Your task to perform on an android device: make emails show in primary in the gmail app Image 0: 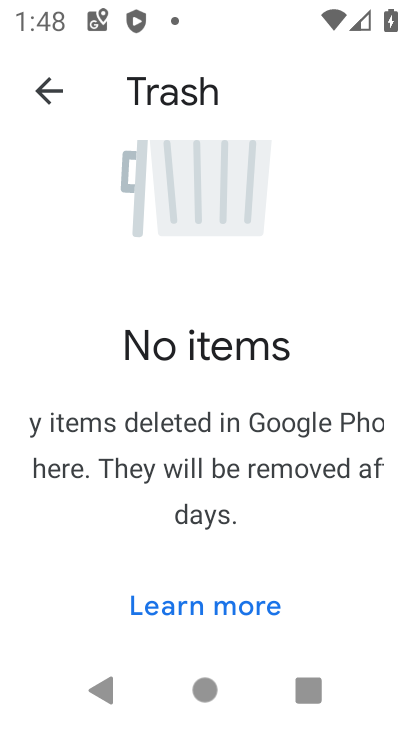
Step 0: press home button
Your task to perform on an android device: make emails show in primary in the gmail app Image 1: 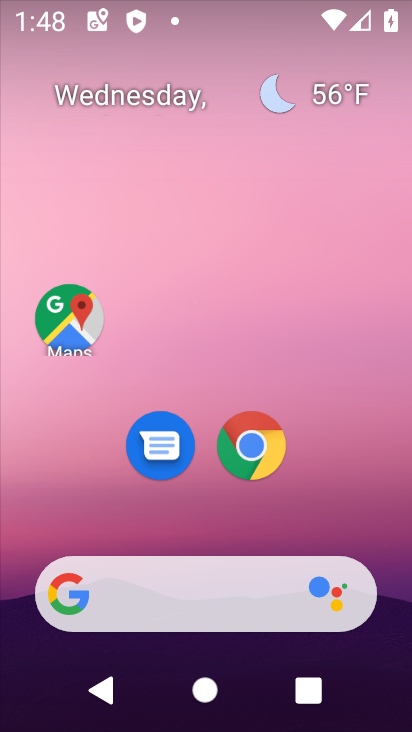
Step 1: drag from (215, 543) to (193, 112)
Your task to perform on an android device: make emails show in primary in the gmail app Image 2: 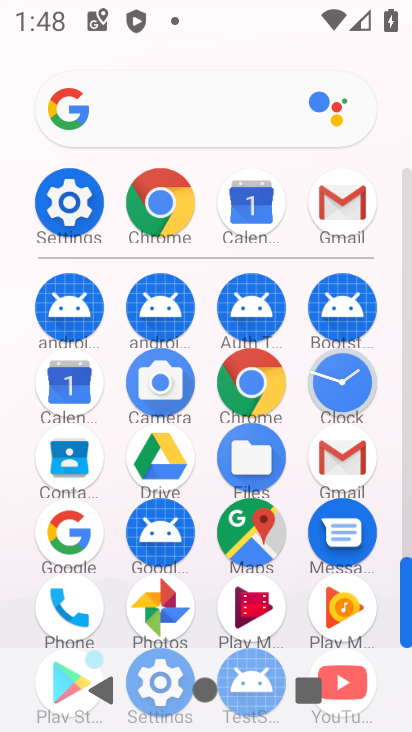
Step 2: click (346, 460)
Your task to perform on an android device: make emails show in primary in the gmail app Image 3: 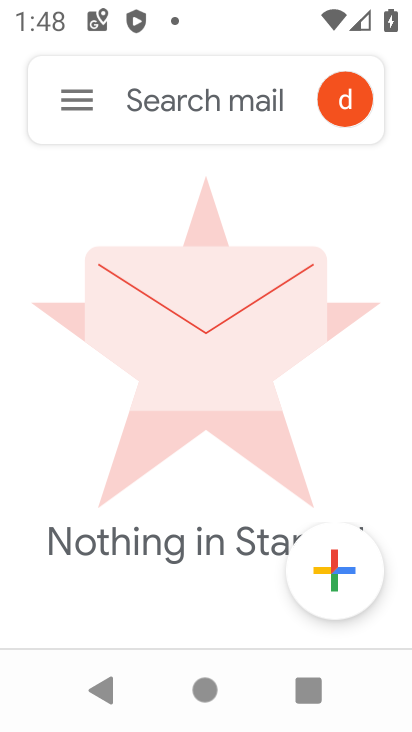
Step 3: click (55, 93)
Your task to perform on an android device: make emails show in primary in the gmail app Image 4: 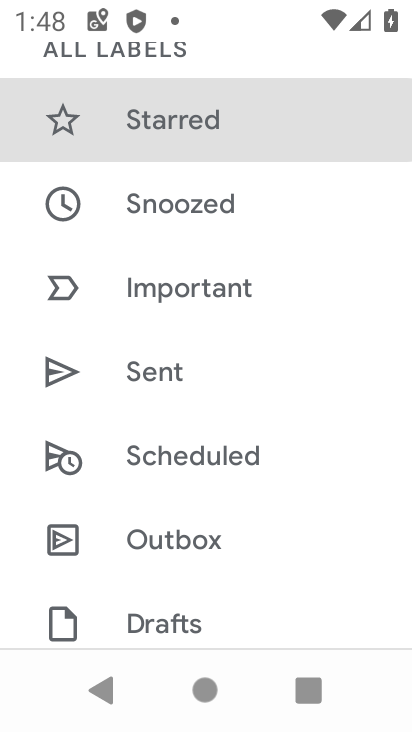
Step 4: drag from (144, 269) to (93, 656)
Your task to perform on an android device: make emails show in primary in the gmail app Image 5: 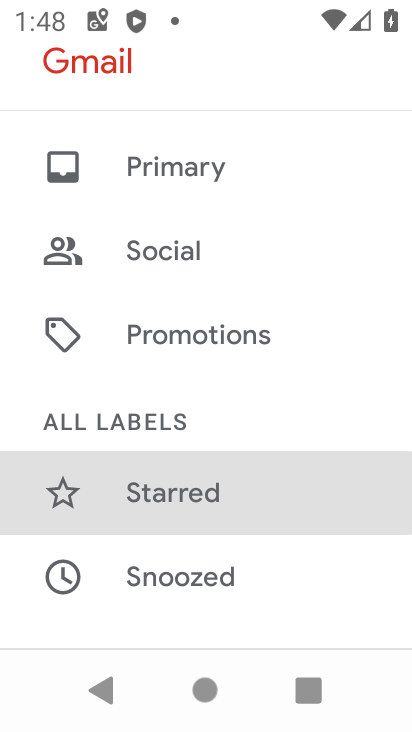
Step 5: click (163, 193)
Your task to perform on an android device: make emails show in primary in the gmail app Image 6: 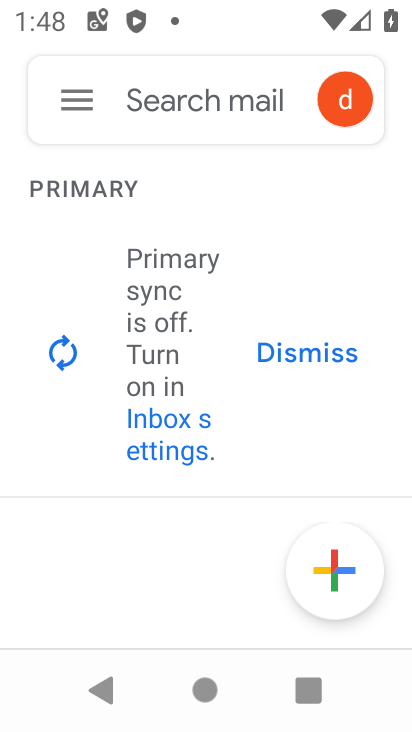
Step 6: task complete